Your task to perform on an android device: Open Google Maps and go to "Timeline" Image 0: 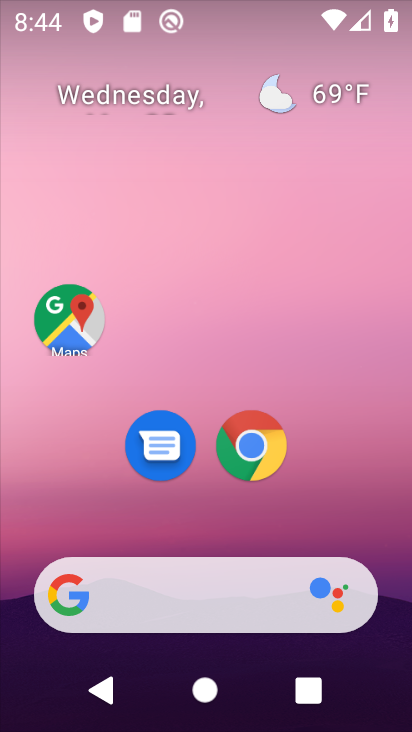
Step 0: drag from (325, 516) to (304, 120)
Your task to perform on an android device: Open Google Maps and go to "Timeline" Image 1: 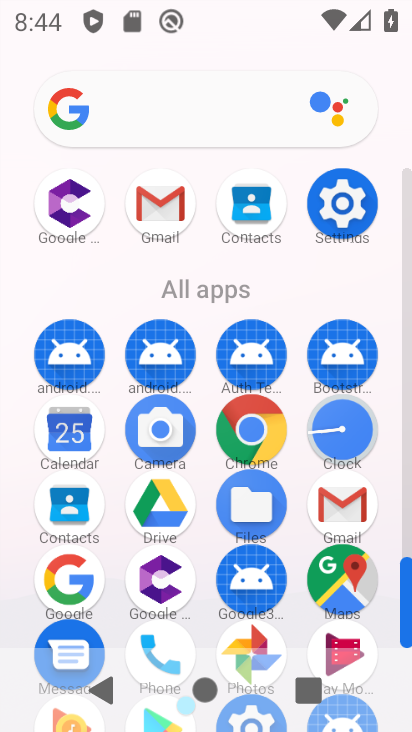
Step 1: drag from (302, 295) to (290, 51)
Your task to perform on an android device: Open Google Maps and go to "Timeline" Image 2: 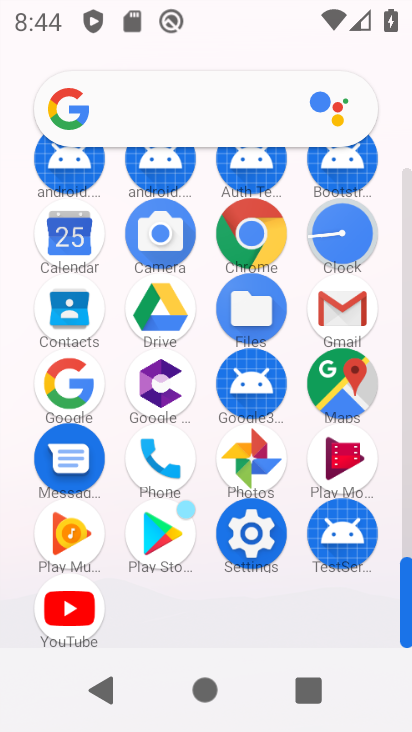
Step 2: click (348, 381)
Your task to perform on an android device: Open Google Maps and go to "Timeline" Image 3: 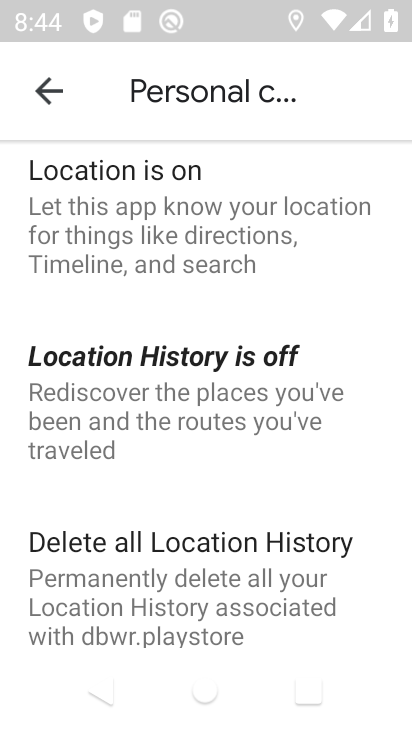
Step 3: click (34, 94)
Your task to perform on an android device: Open Google Maps and go to "Timeline" Image 4: 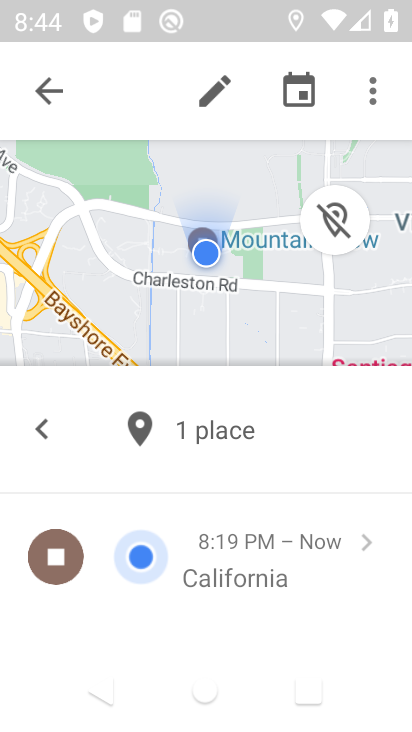
Step 4: click (53, 95)
Your task to perform on an android device: Open Google Maps and go to "Timeline" Image 5: 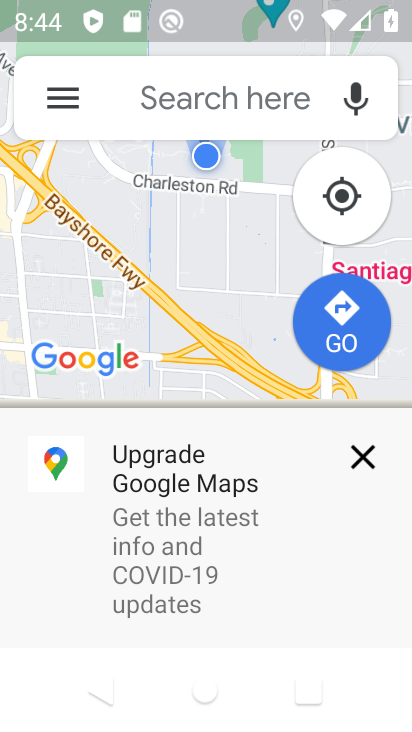
Step 5: click (357, 452)
Your task to perform on an android device: Open Google Maps and go to "Timeline" Image 6: 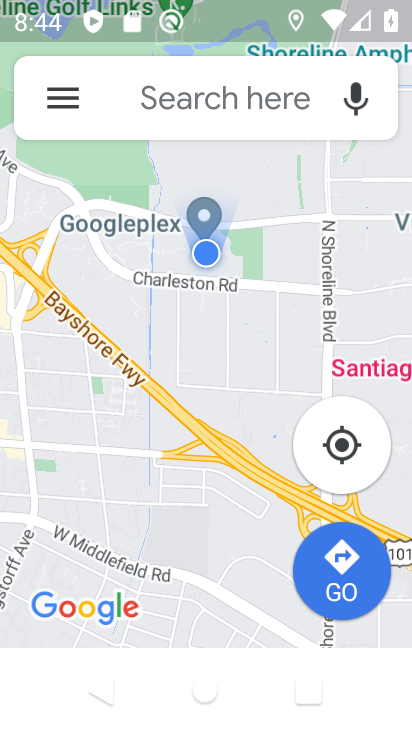
Step 6: task complete